Your task to perform on an android device: Open ESPN.com Image 0: 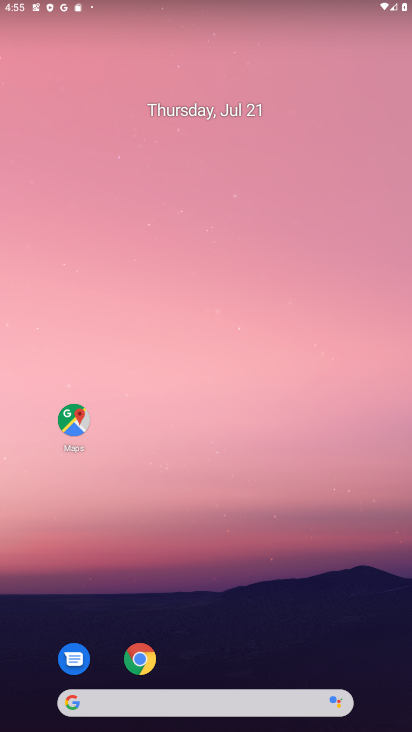
Step 0: click (140, 662)
Your task to perform on an android device: Open ESPN.com Image 1: 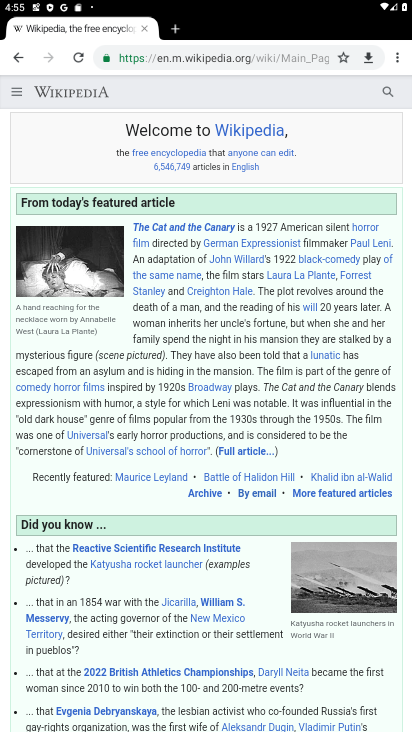
Step 1: click (399, 54)
Your task to perform on an android device: Open ESPN.com Image 2: 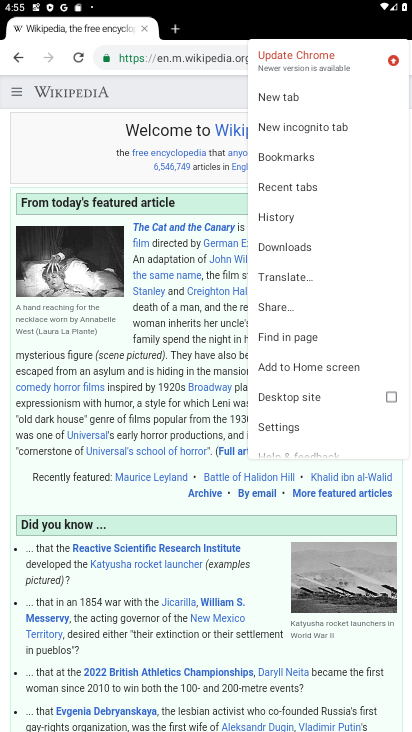
Step 2: click (284, 90)
Your task to perform on an android device: Open ESPN.com Image 3: 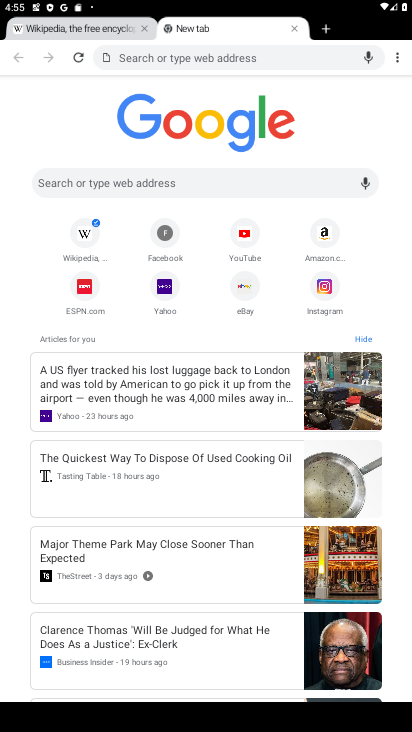
Step 3: click (86, 284)
Your task to perform on an android device: Open ESPN.com Image 4: 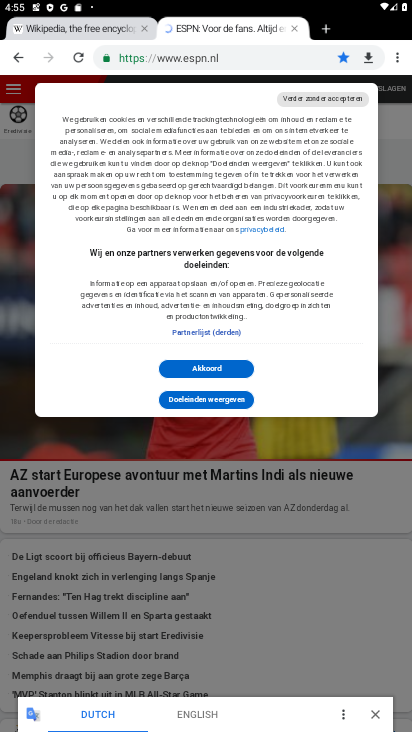
Step 4: click (207, 363)
Your task to perform on an android device: Open ESPN.com Image 5: 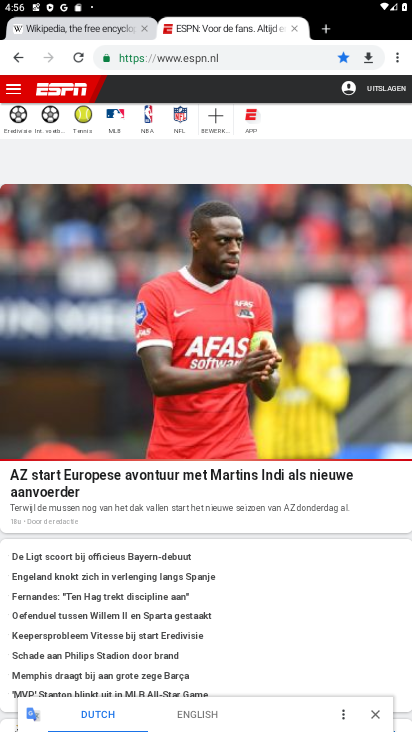
Step 5: task complete